Your task to perform on an android device: What is the capital of India? Image 0: 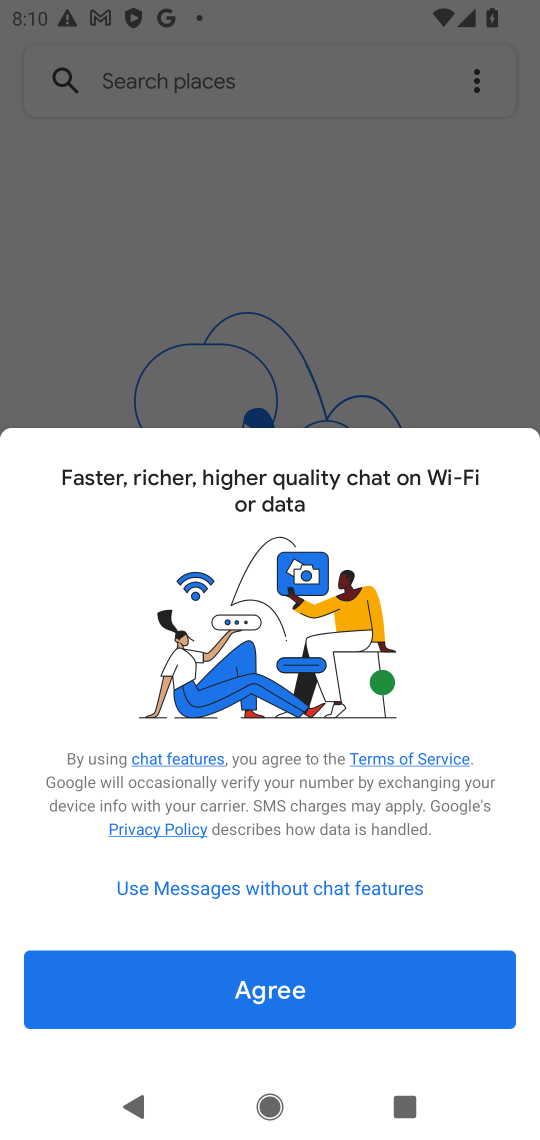
Step 0: press home button
Your task to perform on an android device: What is the capital of India? Image 1: 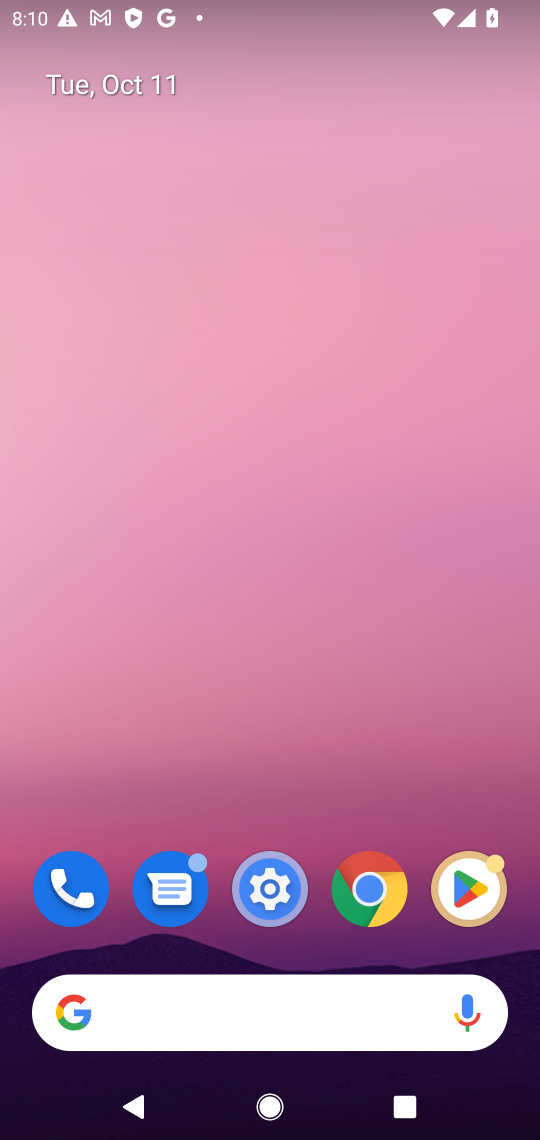
Step 1: click (121, 1033)
Your task to perform on an android device: What is the capital of India? Image 2: 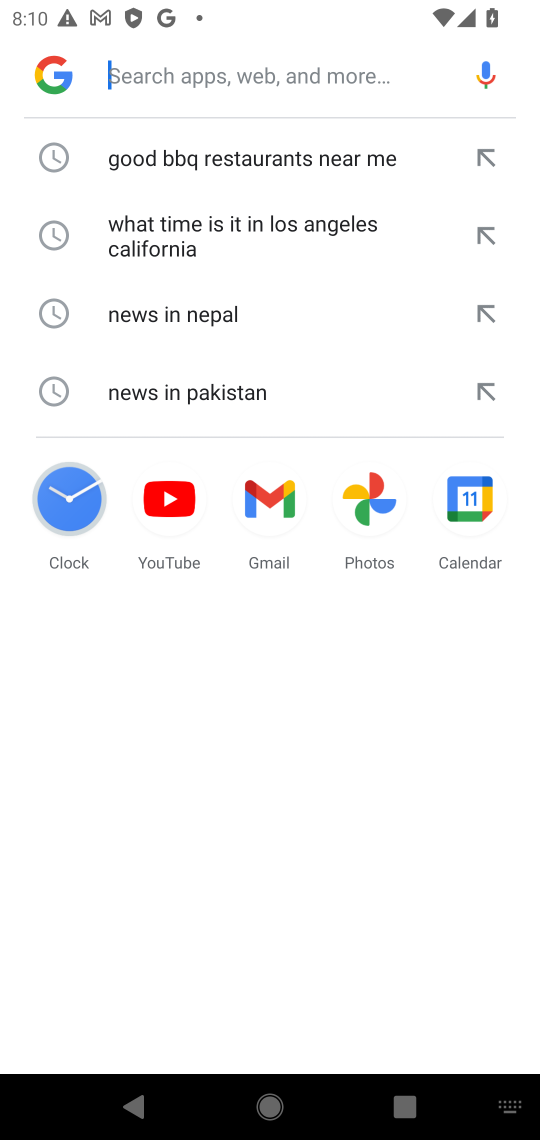
Step 2: click (186, 68)
Your task to perform on an android device: What is the capital of India? Image 3: 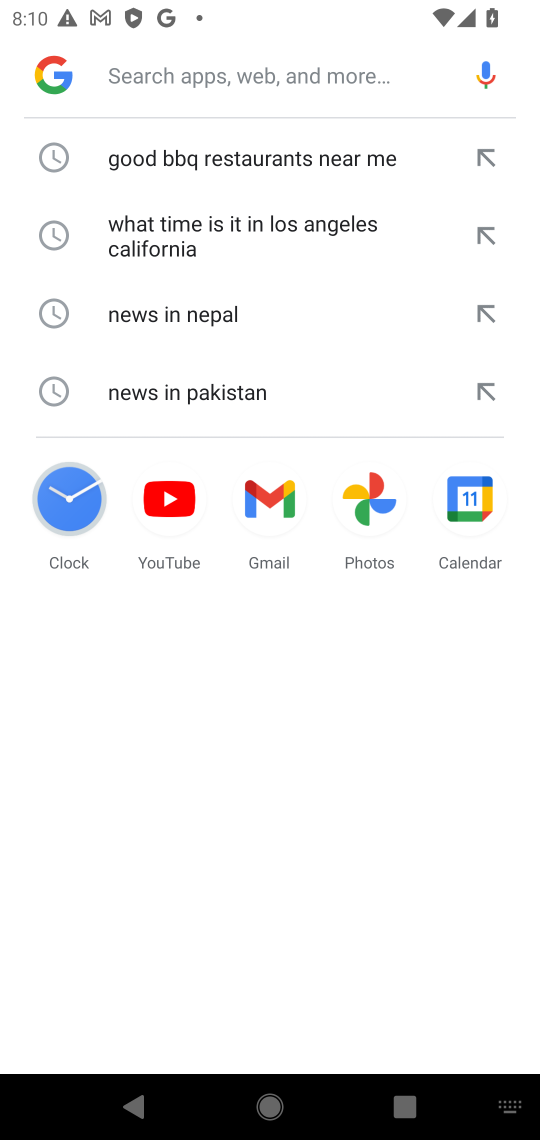
Step 3: type "What is the capital of India?"
Your task to perform on an android device: What is the capital of India? Image 4: 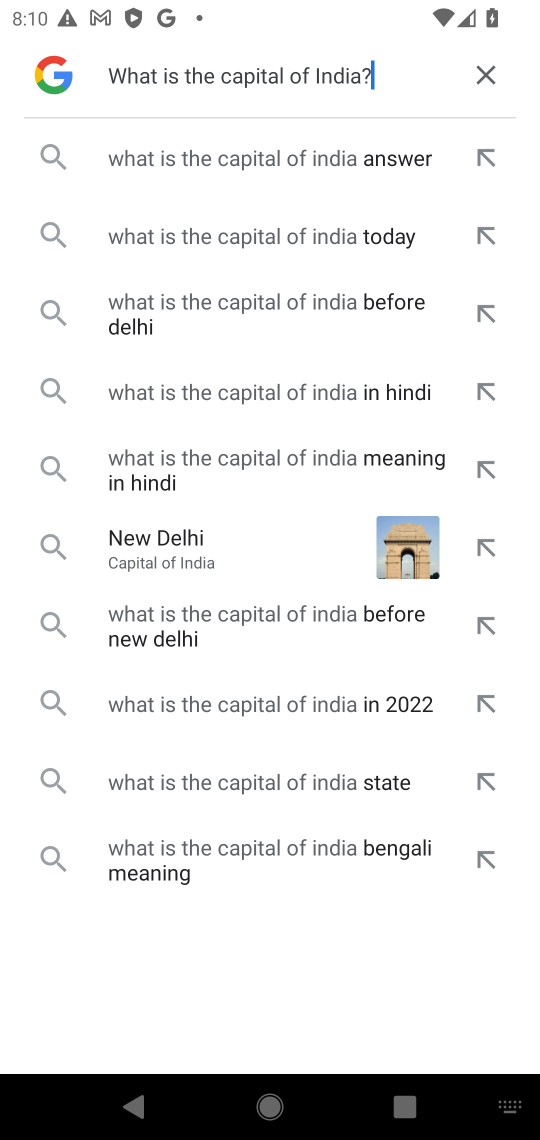
Step 4: click (257, 171)
Your task to perform on an android device: What is the capital of India? Image 5: 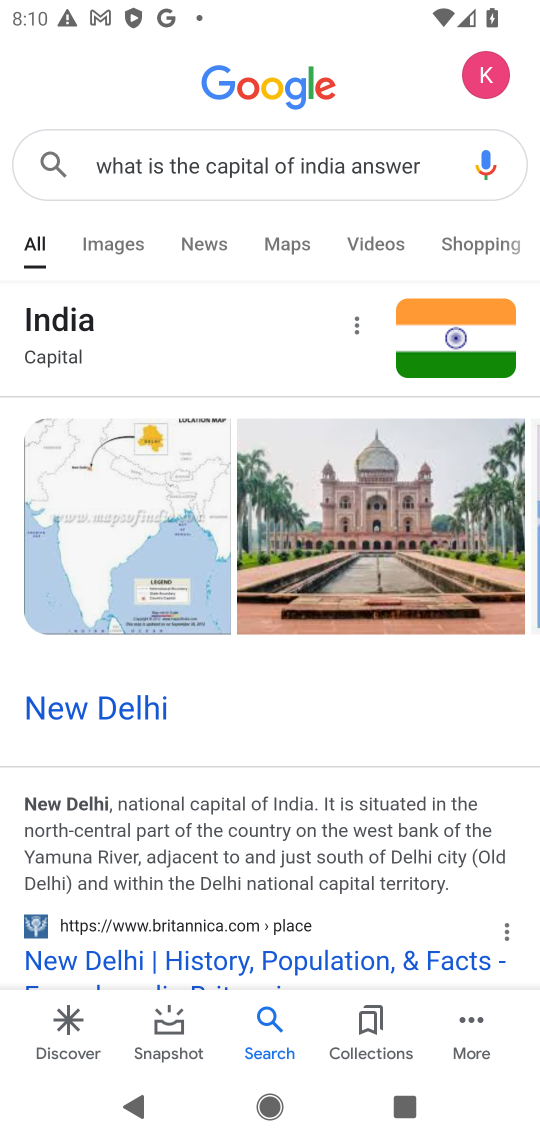
Step 5: task complete